Your task to perform on an android device: toggle javascript in the chrome app Image 0: 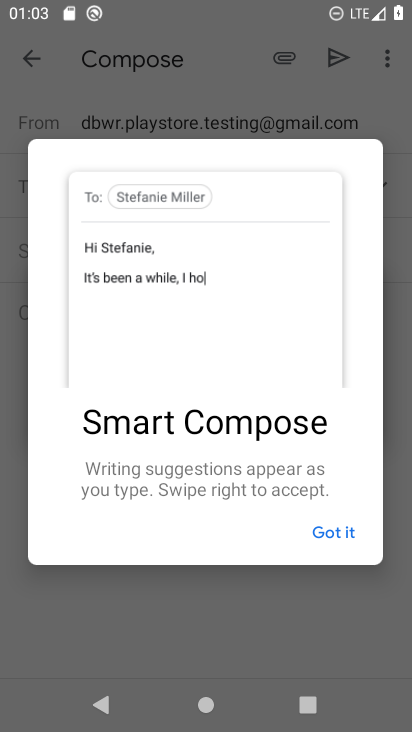
Step 0: press home button
Your task to perform on an android device: toggle javascript in the chrome app Image 1: 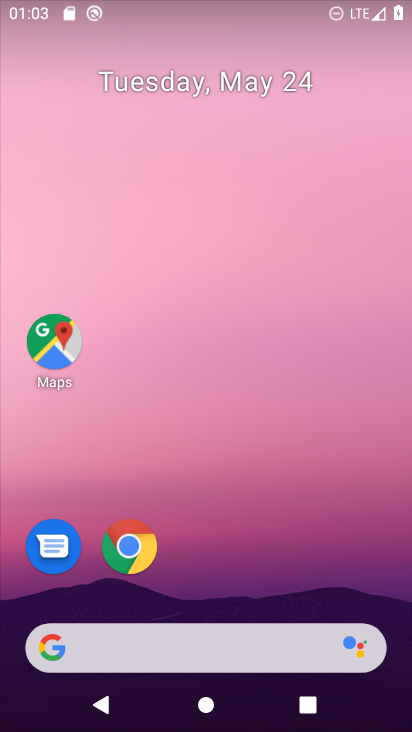
Step 1: drag from (315, 681) to (239, 7)
Your task to perform on an android device: toggle javascript in the chrome app Image 2: 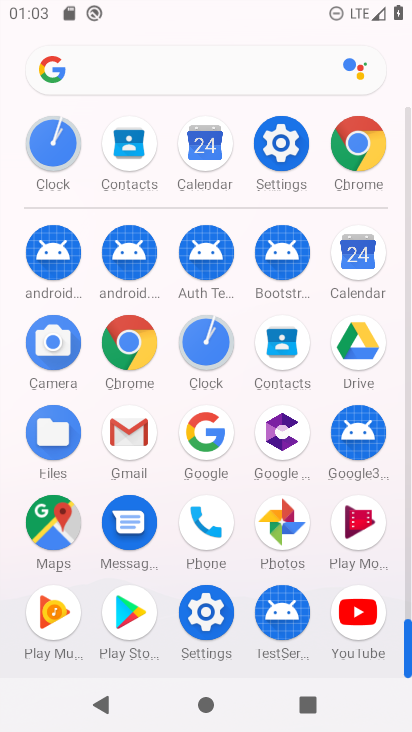
Step 2: click (134, 336)
Your task to perform on an android device: toggle javascript in the chrome app Image 3: 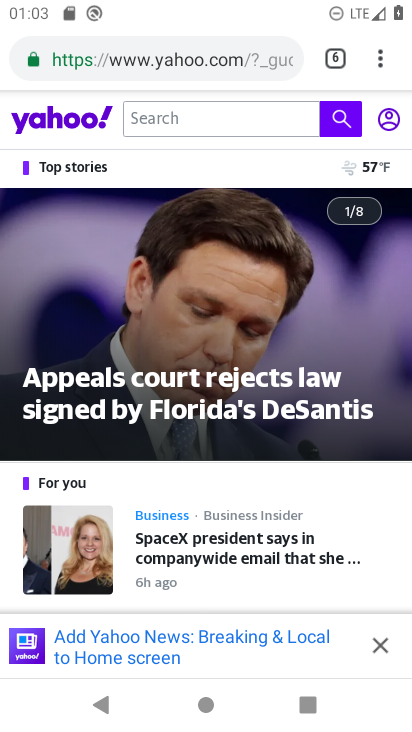
Step 3: drag from (377, 56) to (196, 560)
Your task to perform on an android device: toggle javascript in the chrome app Image 4: 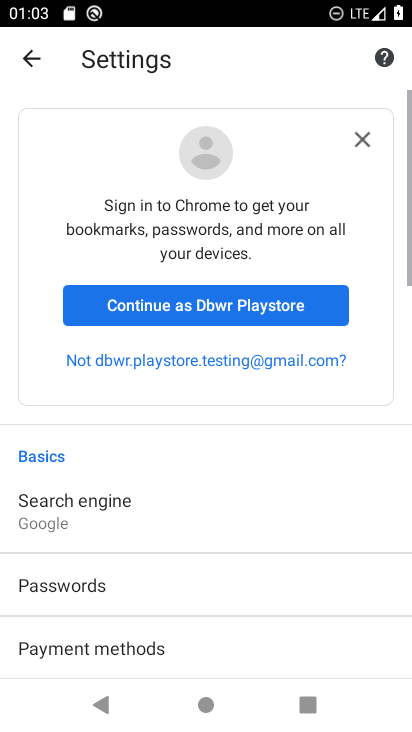
Step 4: drag from (185, 625) to (203, 63)
Your task to perform on an android device: toggle javascript in the chrome app Image 5: 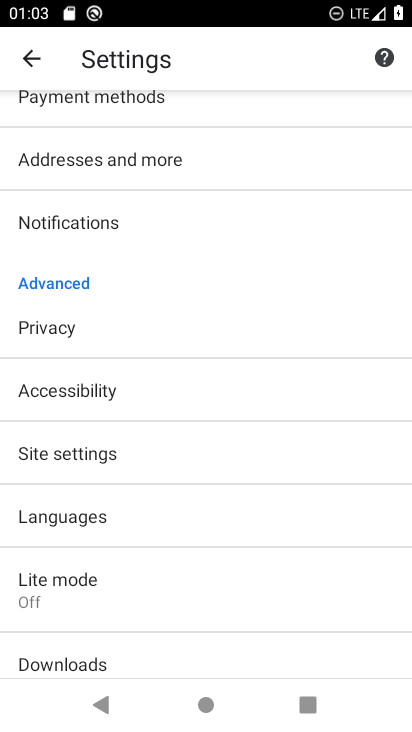
Step 5: click (99, 440)
Your task to perform on an android device: toggle javascript in the chrome app Image 6: 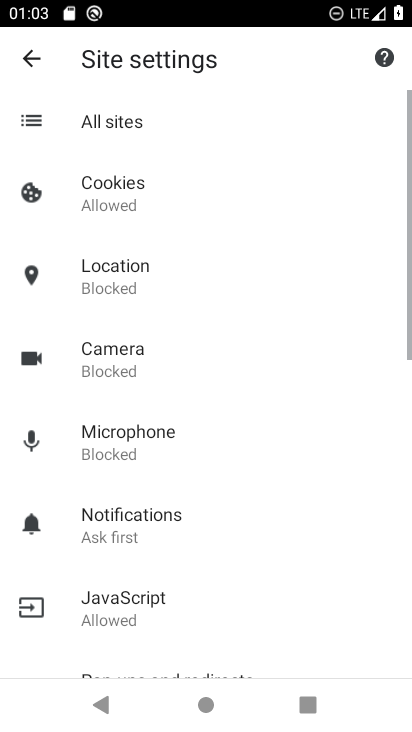
Step 6: drag from (223, 563) to (225, 245)
Your task to perform on an android device: toggle javascript in the chrome app Image 7: 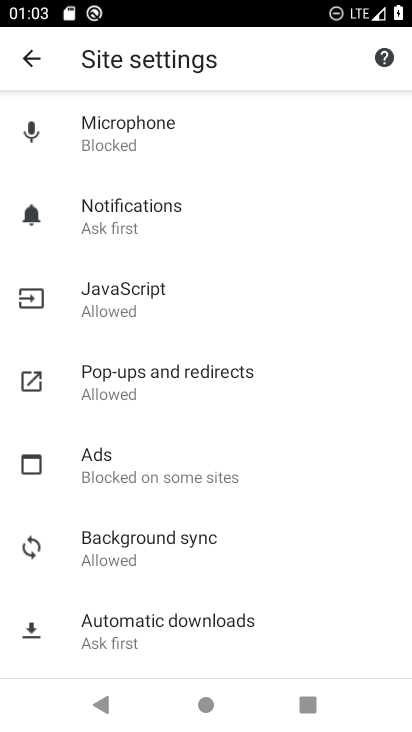
Step 7: click (132, 285)
Your task to perform on an android device: toggle javascript in the chrome app Image 8: 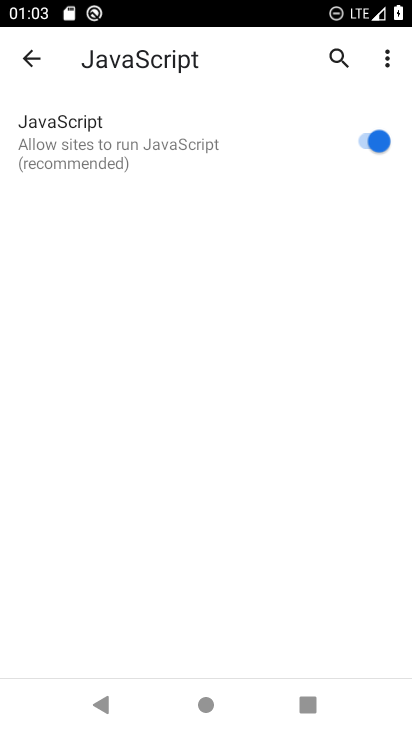
Step 8: click (370, 138)
Your task to perform on an android device: toggle javascript in the chrome app Image 9: 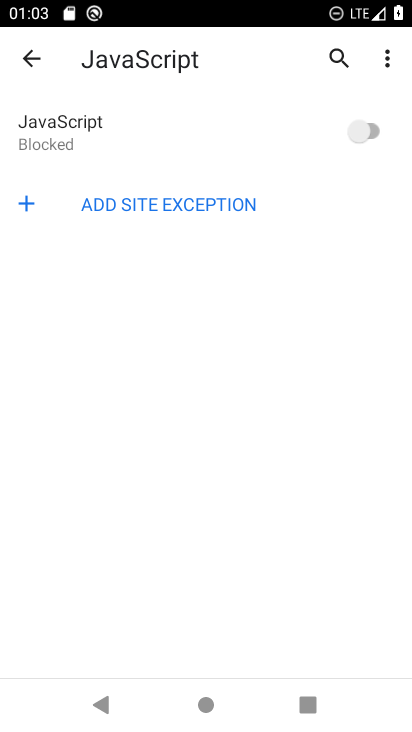
Step 9: task complete